Your task to perform on an android device: set the stopwatch Image 0: 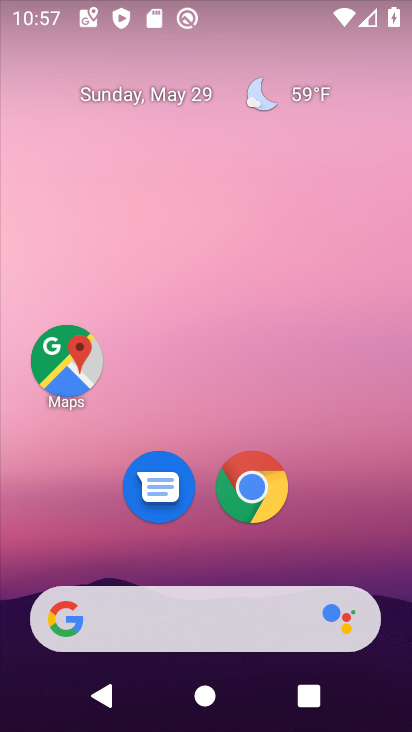
Step 0: click (254, 71)
Your task to perform on an android device: set the stopwatch Image 1: 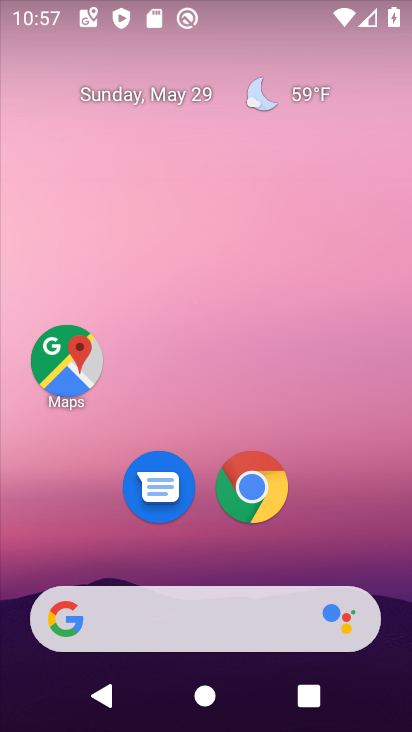
Step 1: drag from (359, 525) to (241, 26)
Your task to perform on an android device: set the stopwatch Image 2: 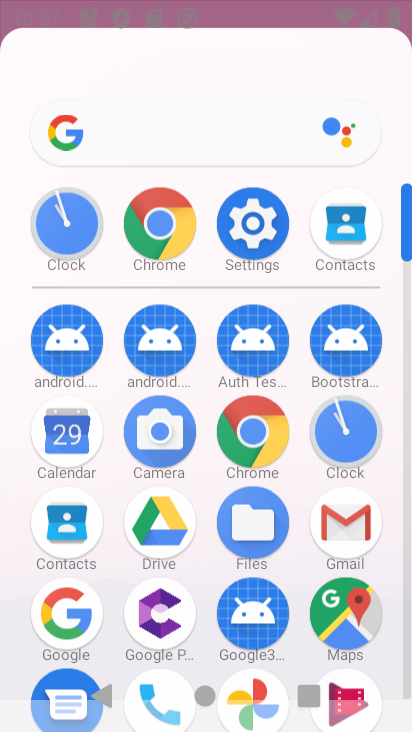
Step 2: drag from (382, 645) to (246, 45)
Your task to perform on an android device: set the stopwatch Image 3: 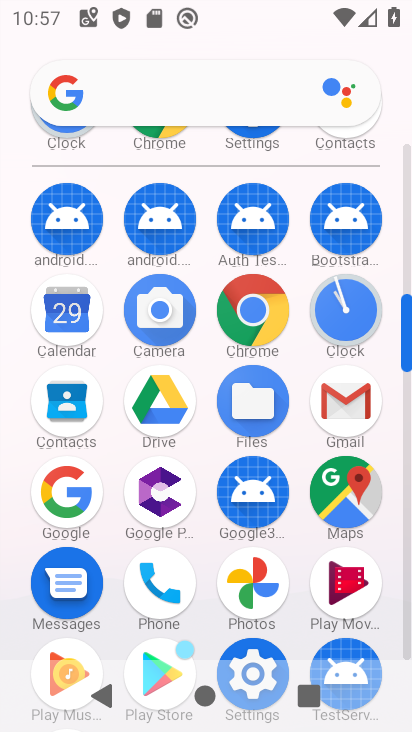
Step 3: click (333, 321)
Your task to perform on an android device: set the stopwatch Image 4: 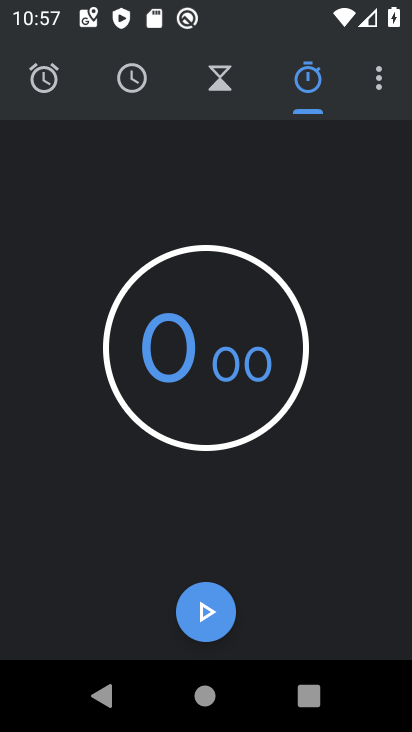
Step 4: click (221, 603)
Your task to perform on an android device: set the stopwatch Image 5: 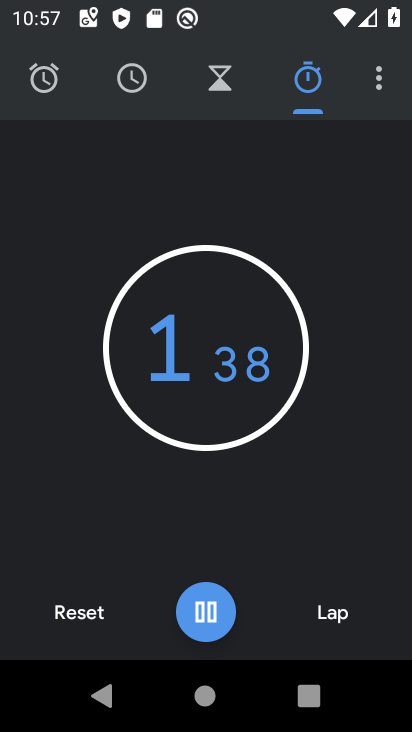
Step 5: task complete